Your task to perform on an android device: Go to wifi settings Image 0: 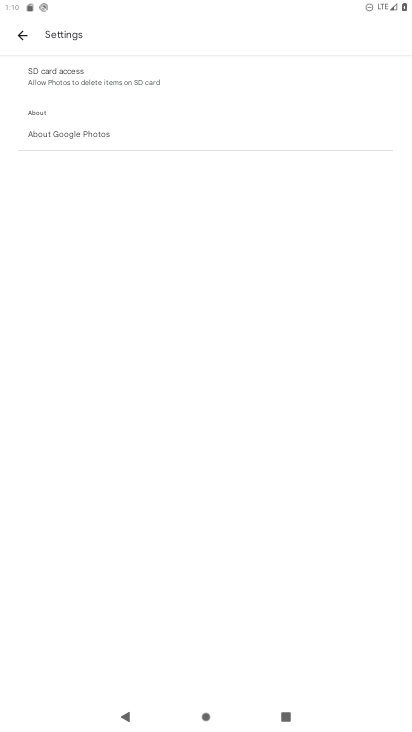
Step 0: press home button
Your task to perform on an android device: Go to wifi settings Image 1: 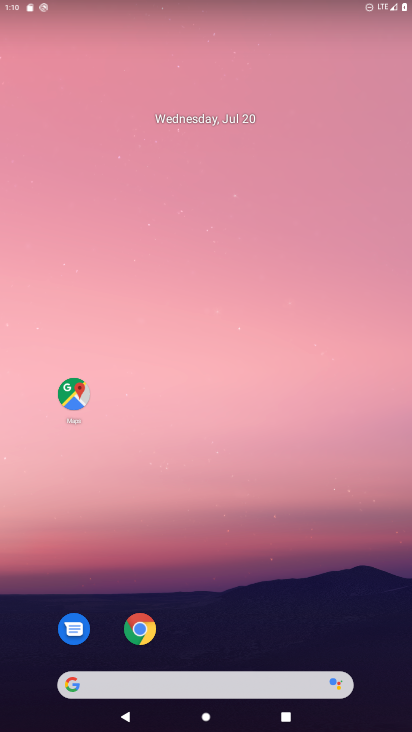
Step 1: drag from (174, 650) to (311, 3)
Your task to perform on an android device: Go to wifi settings Image 2: 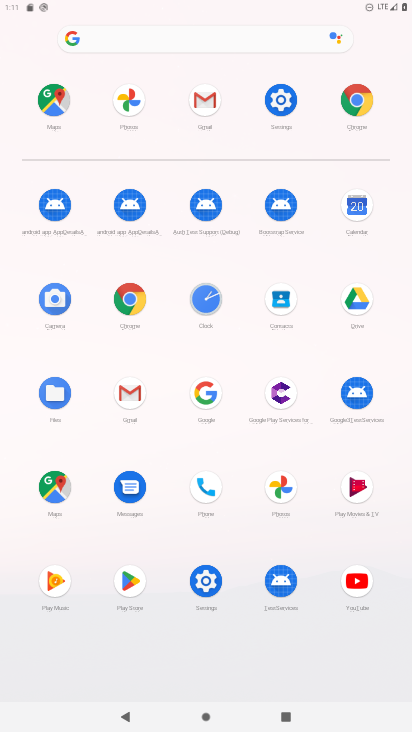
Step 2: click (274, 94)
Your task to perform on an android device: Go to wifi settings Image 3: 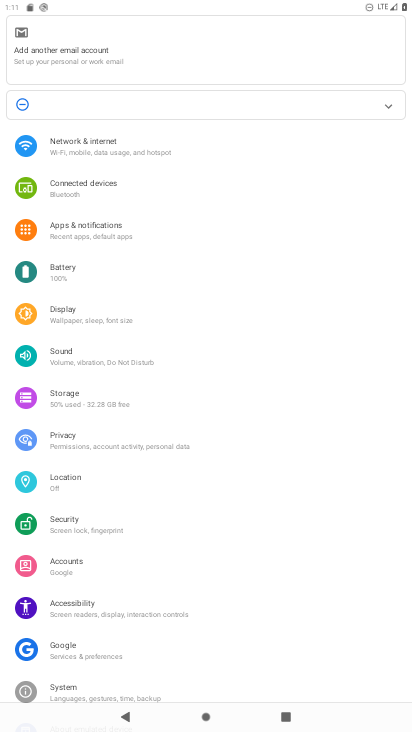
Step 3: click (118, 152)
Your task to perform on an android device: Go to wifi settings Image 4: 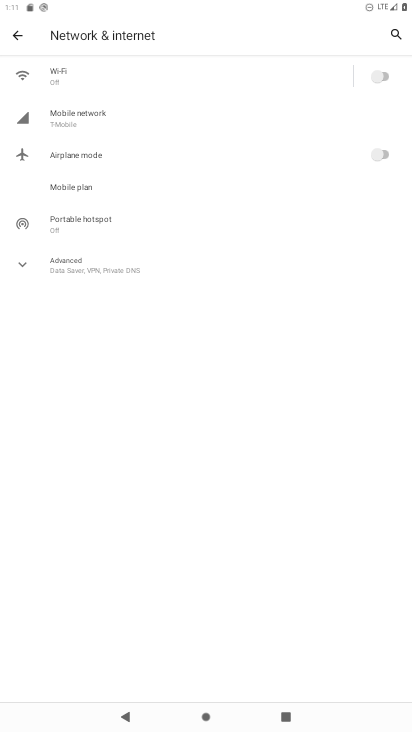
Step 4: click (380, 75)
Your task to perform on an android device: Go to wifi settings Image 5: 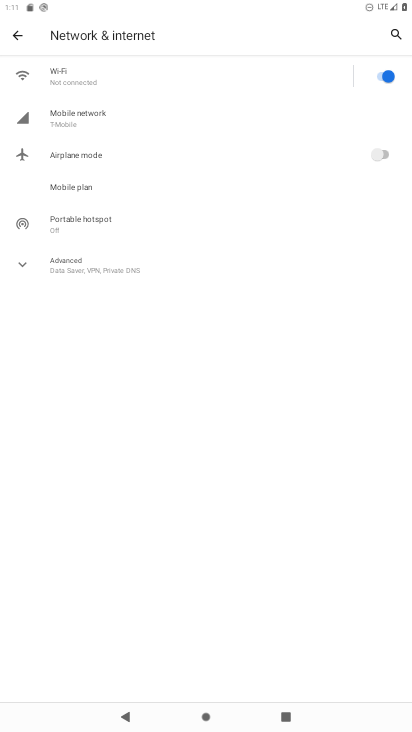
Step 5: click (246, 92)
Your task to perform on an android device: Go to wifi settings Image 6: 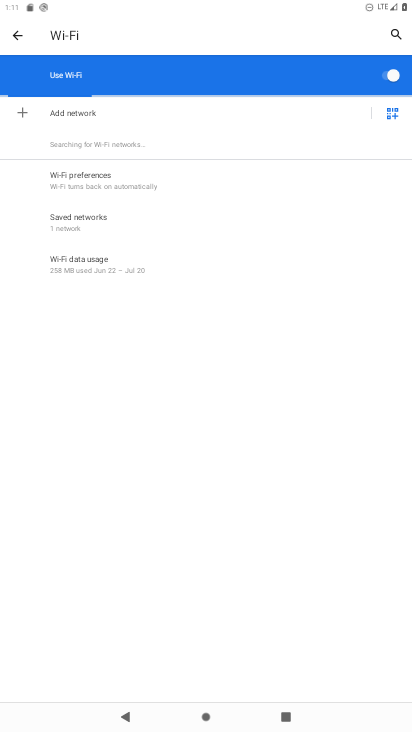
Step 6: task complete